Your task to perform on an android device: change the upload size in google photos Image 0: 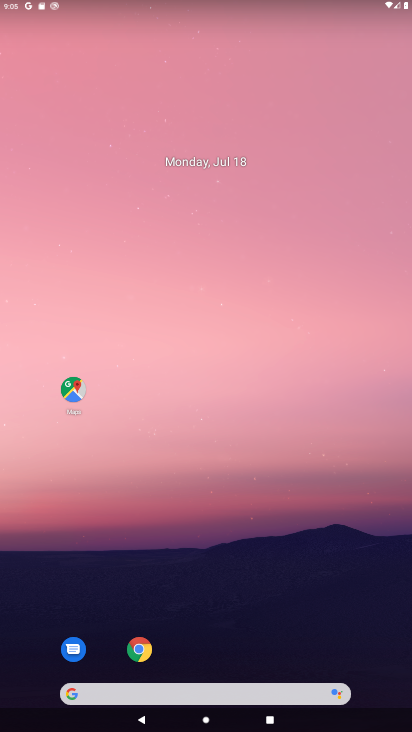
Step 0: drag from (198, 680) to (221, 368)
Your task to perform on an android device: change the upload size in google photos Image 1: 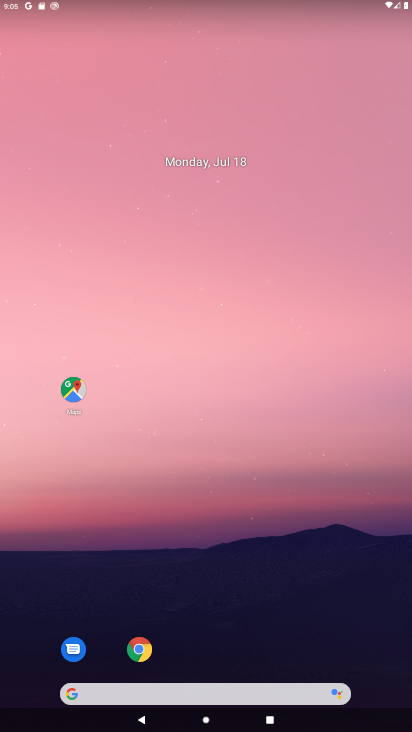
Step 1: drag from (201, 690) to (227, 383)
Your task to perform on an android device: change the upload size in google photos Image 2: 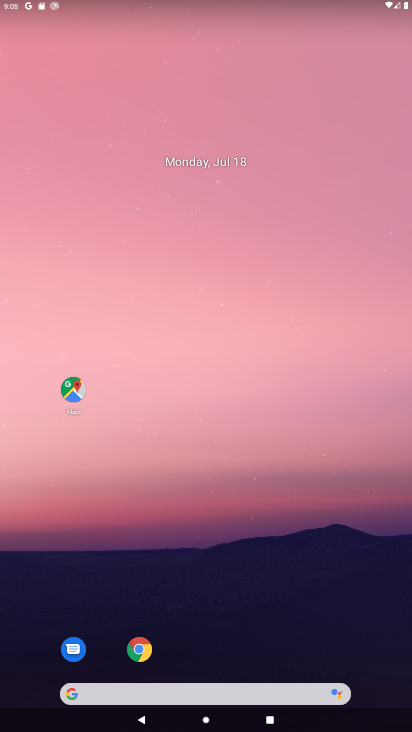
Step 2: drag from (258, 685) to (335, 177)
Your task to perform on an android device: change the upload size in google photos Image 3: 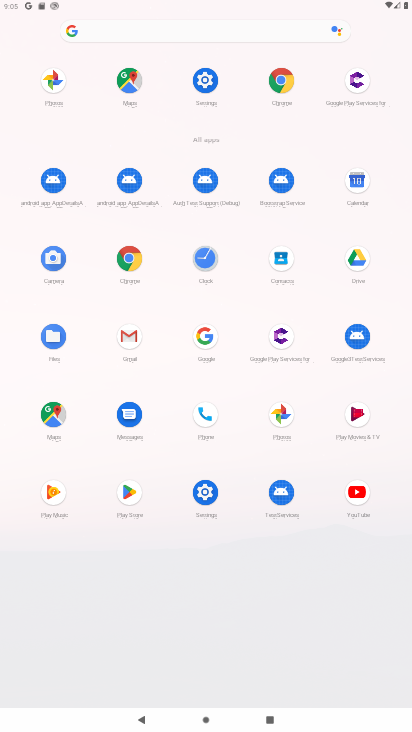
Step 3: click (278, 418)
Your task to perform on an android device: change the upload size in google photos Image 4: 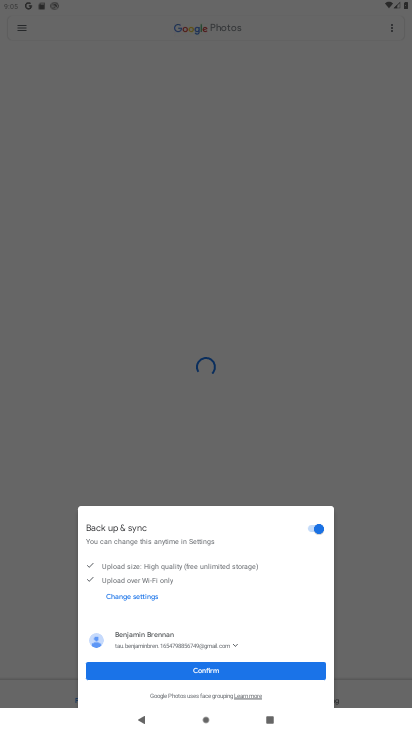
Step 4: click (220, 678)
Your task to perform on an android device: change the upload size in google photos Image 5: 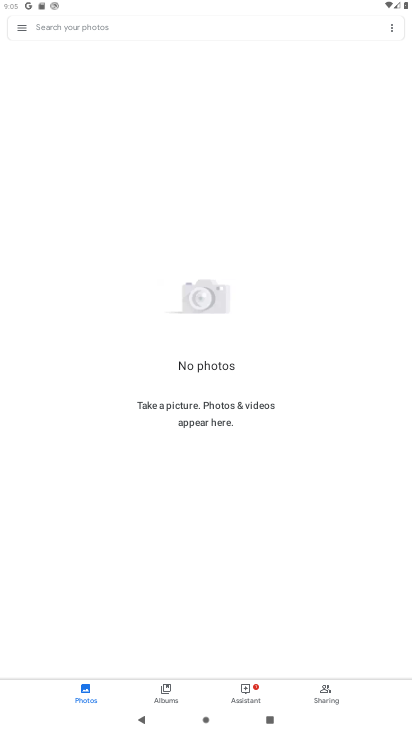
Step 5: click (24, 31)
Your task to perform on an android device: change the upload size in google photos Image 6: 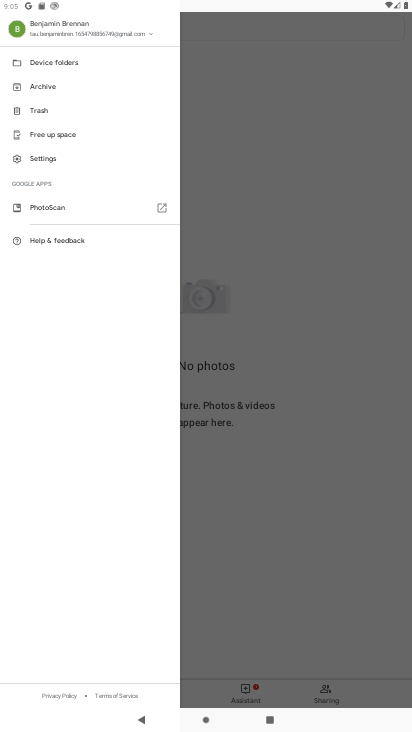
Step 6: click (42, 156)
Your task to perform on an android device: change the upload size in google photos Image 7: 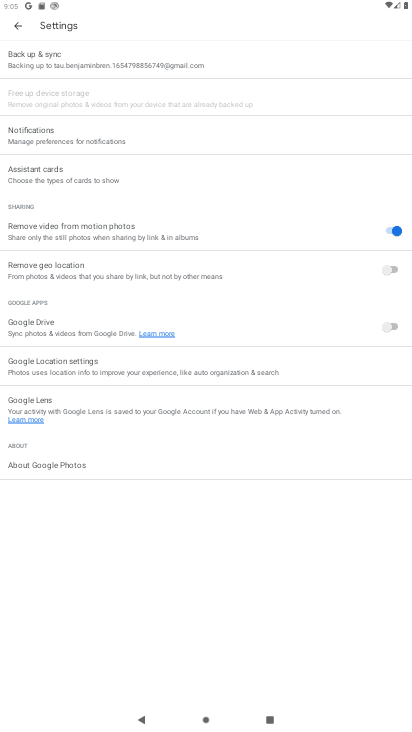
Step 7: click (66, 64)
Your task to perform on an android device: change the upload size in google photos Image 8: 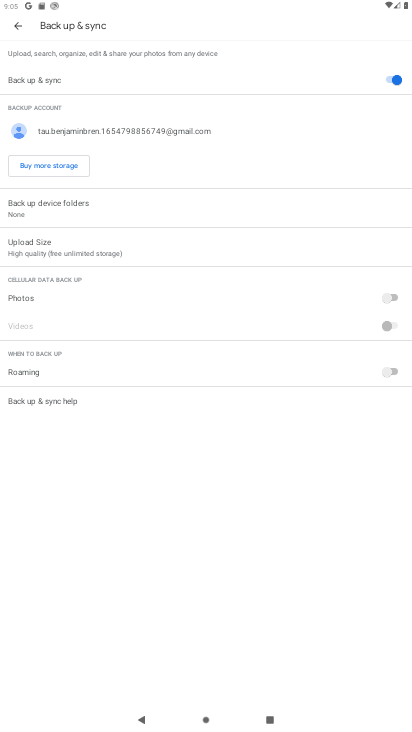
Step 8: click (21, 251)
Your task to perform on an android device: change the upload size in google photos Image 9: 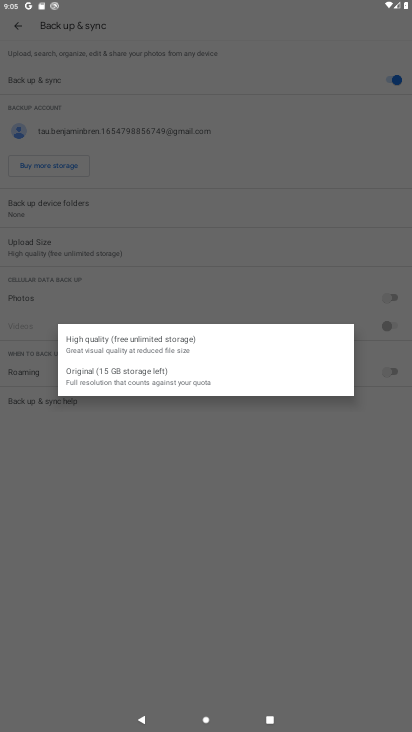
Step 9: click (87, 374)
Your task to perform on an android device: change the upload size in google photos Image 10: 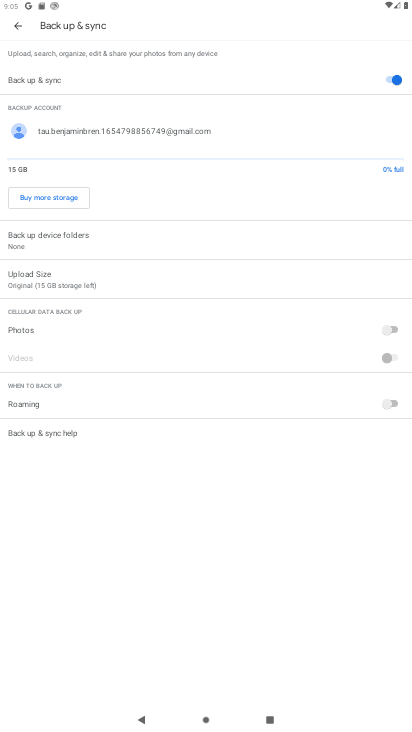
Step 10: task complete